Your task to perform on an android device: Go to Google maps Image 0: 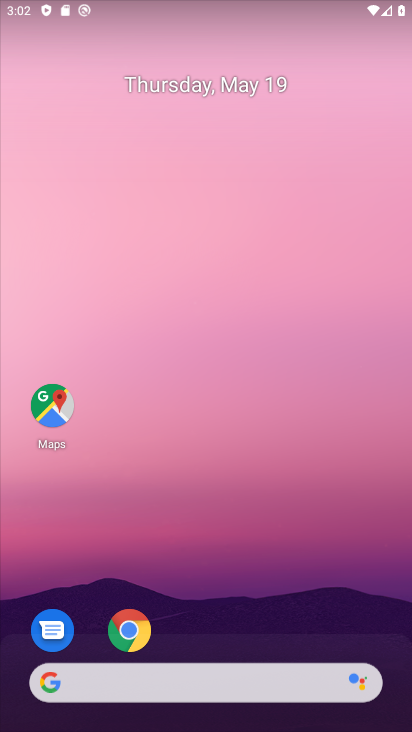
Step 0: drag from (246, 620) to (256, 49)
Your task to perform on an android device: Go to Google maps Image 1: 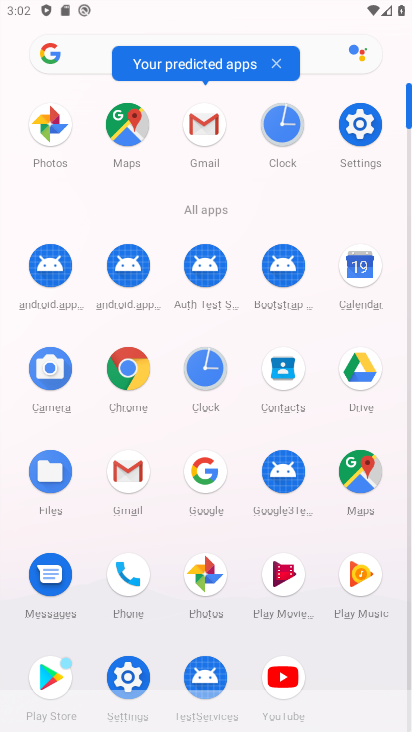
Step 1: click (120, 128)
Your task to perform on an android device: Go to Google maps Image 2: 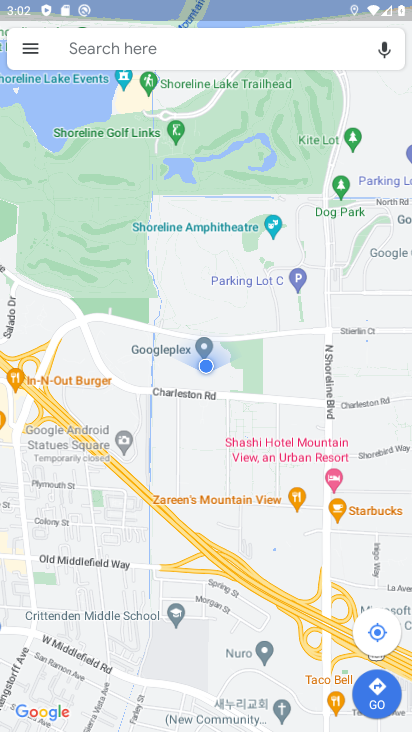
Step 2: task complete